Your task to perform on an android device: stop showing notifications on the lock screen Image 0: 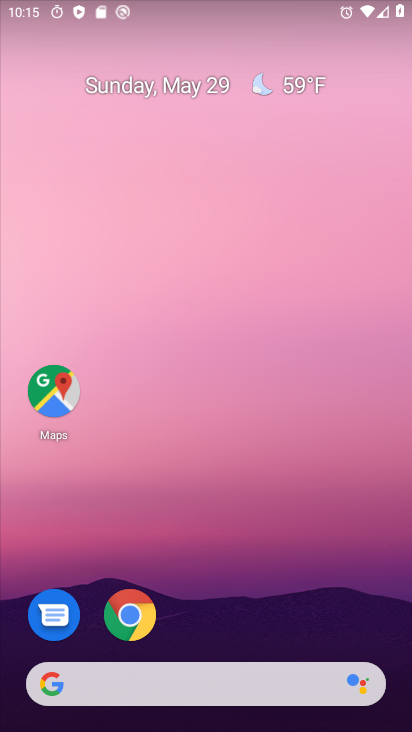
Step 0: drag from (242, 457) to (301, 94)
Your task to perform on an android device: stop showing notifications on the lock screen Image 1: 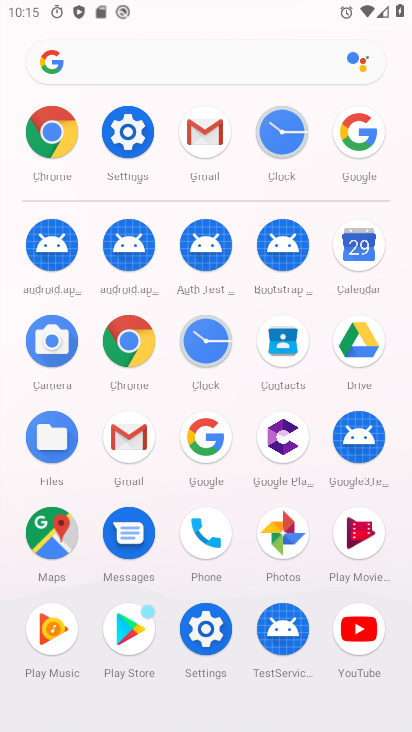
Step 1: click (121, 130)
Your task to perform on an android device: stop showing notifications on the lock screen Image 2: 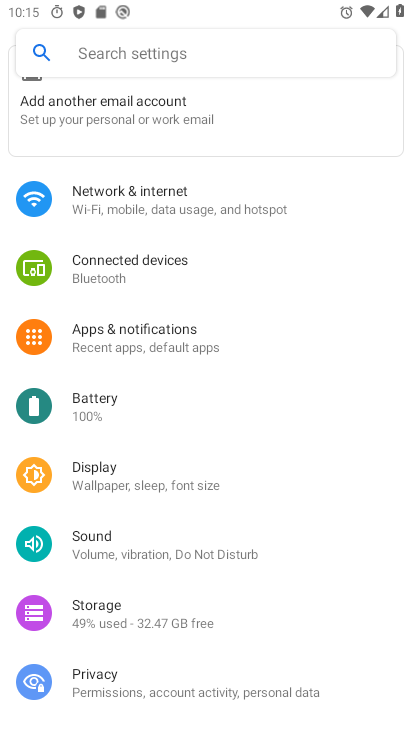
Step 2: click (173, 314)
Your task to perform on an android device: stop showing notifications on the lock screen Image 3: 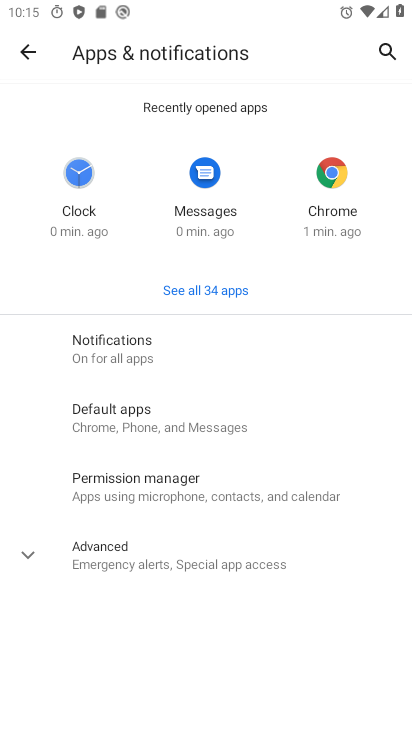
Step 3: click (144, 349)
Your task to perform on an android device: stop showing notifications on the lock screen Image 4: 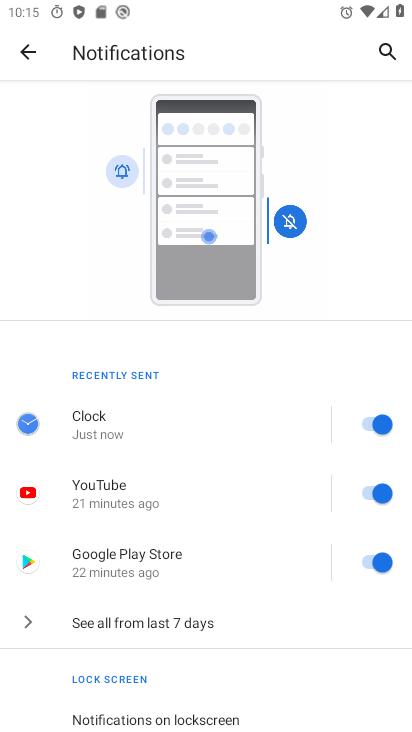
Step 4: drag from (238, 565) to (252, 69)
Your task to perform on an android device: stop showing notifications on the lock screen Image 5: 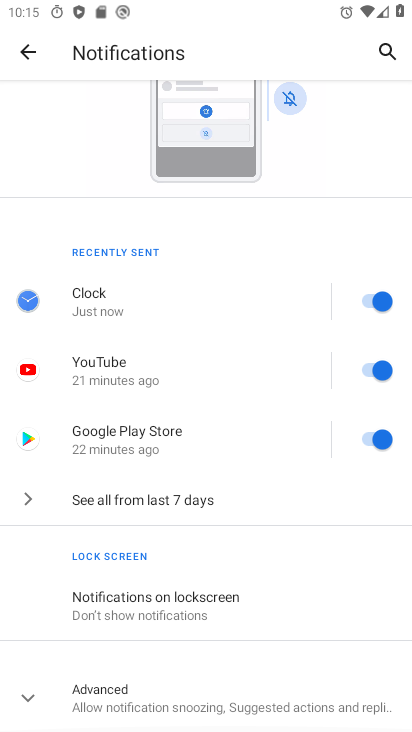
Step 5: click (109, 691)
Your task to perform on an android device: stop showing notifications on the lock screen Image 6: 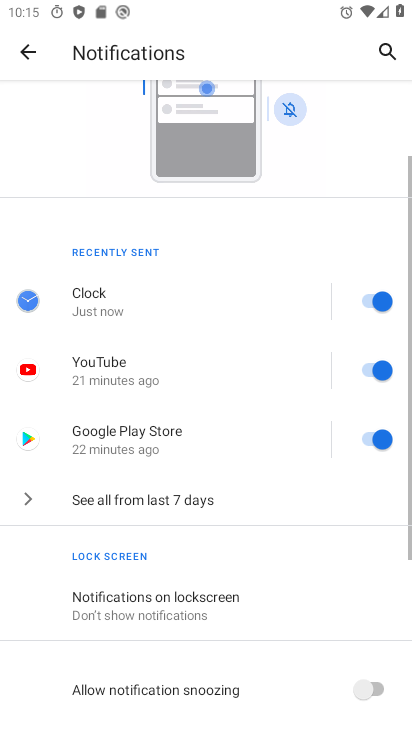
Step 6: click (157, 603)
Your task to perform on an android device: stop showing notifications on the lock screen Image 7: 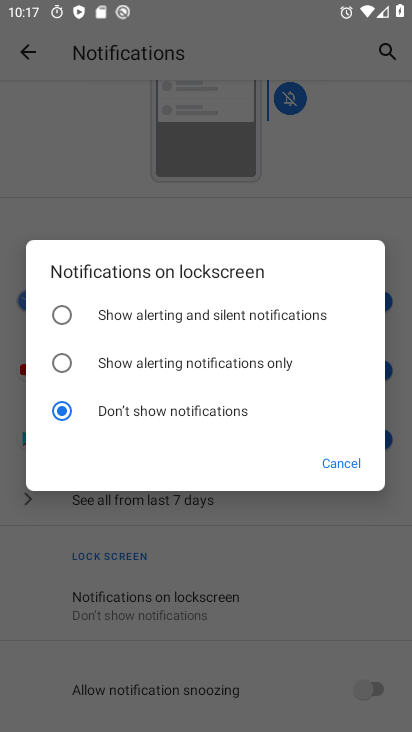
Step 7: task complete